Your task to perform on an android device: turn off notifications in google photos Image 0: 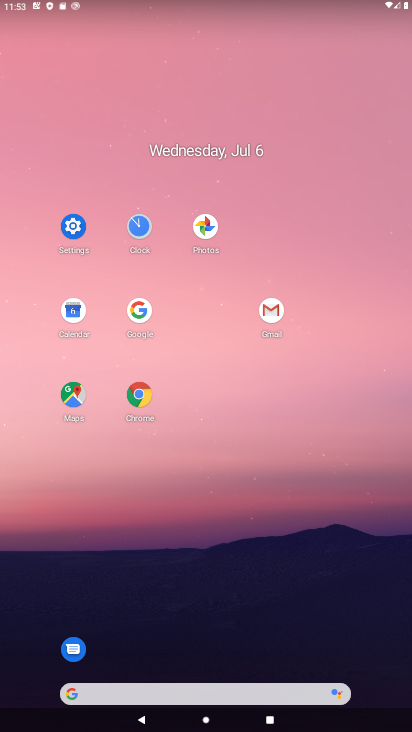
Step 0: click (193, 218)
Your task to perform on an android device: turn off notifications in google photos Image 1: 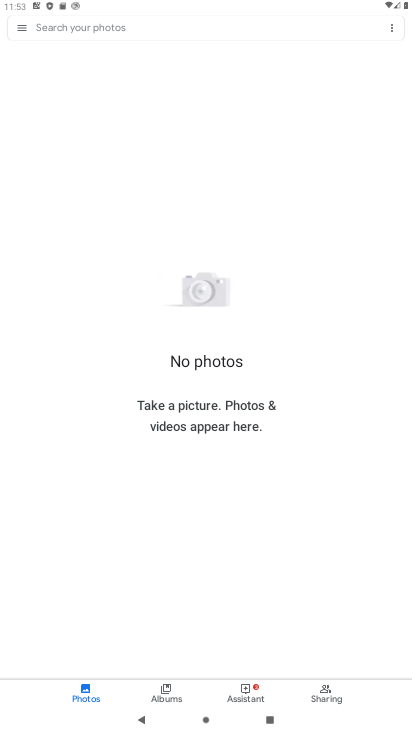
Step 1: click (17, 25)
Your task to perform on an android device: turn off notifications in google photos Image 2: 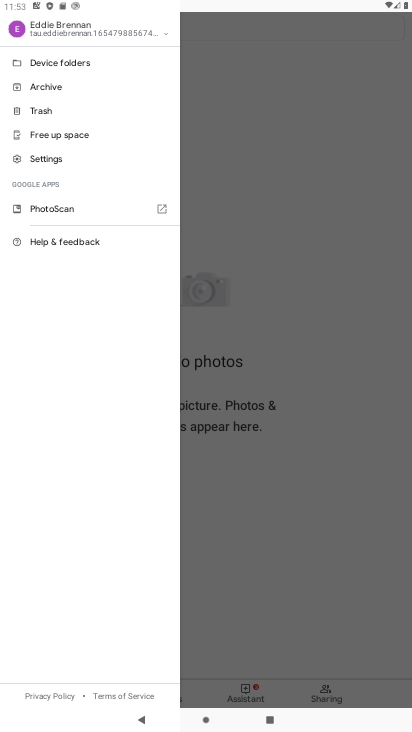
Step 2: click (47, 155)
Your task to perform on an android device: turn off notifications in google photos Image 3: 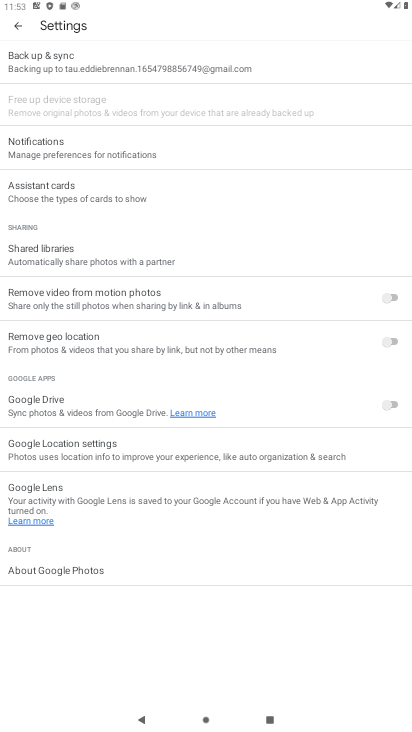
Step 3: click (150, 148)
Your task to perform on an android device: turn off notifications in google photos Image 4: 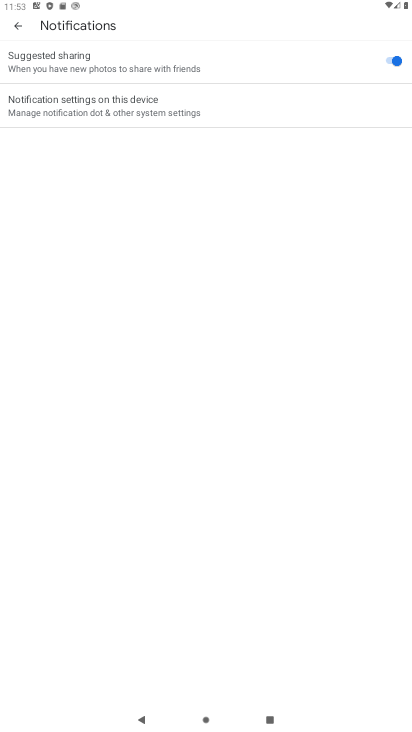
Step 4: click (397, 48)
Your task to perform on an android device: turn off notifications in google photos Image 5: 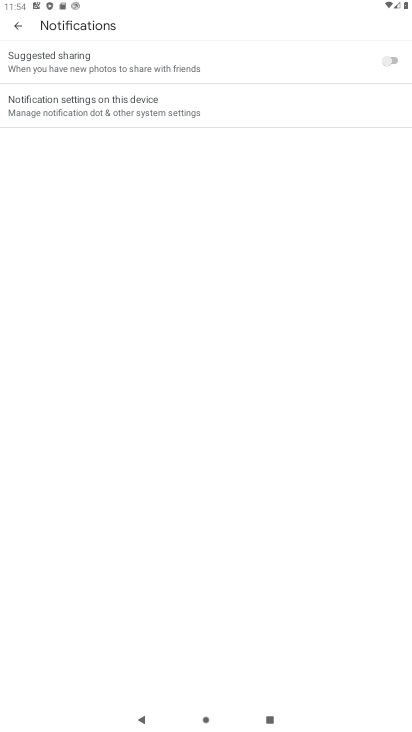
Step 5: task complete